Your task to perform on an android device: delete the emails in spam in the gmail app Image 0: 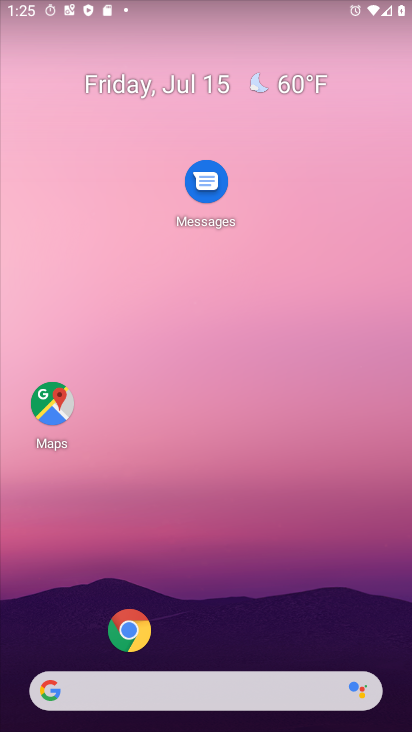
Step 0: drag from (96, 529) to (261, 179)
Your task to perform on an android device: delete the emails in spam in the gmail app Image 1: 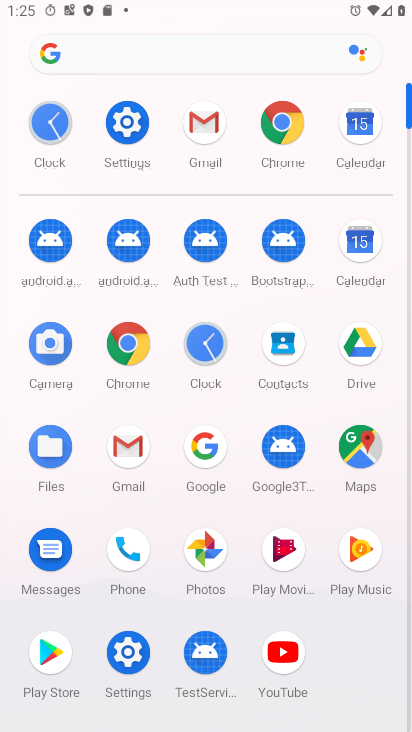
Step 1: click (190, 118)
Your task to perform on an android device: delete the emails in spam in the gmail app Image 2: 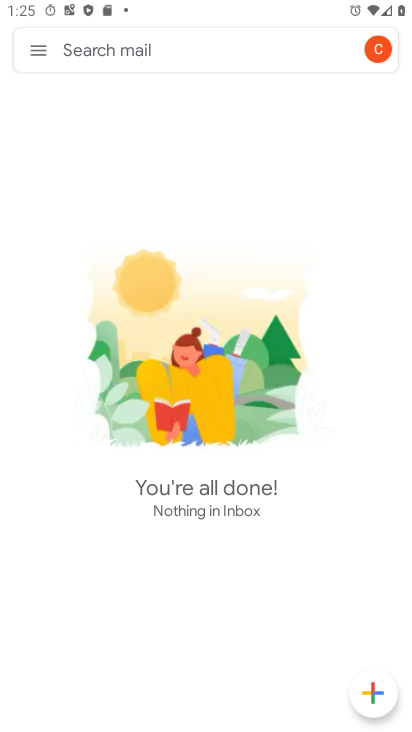
Step 2: click (47, 55)
Your task to perform on an android device: delete the emails in spam in the gmail app Image 3: 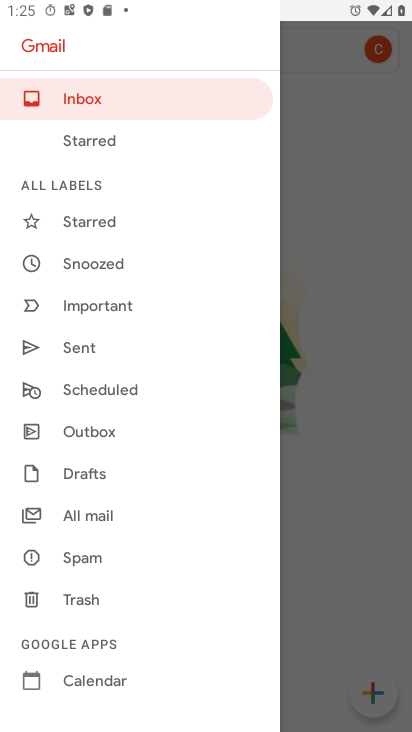
Step 3: click (72, 560)
Your task to perform on an android device: delete the emails in spam in the gmail app Image 4: 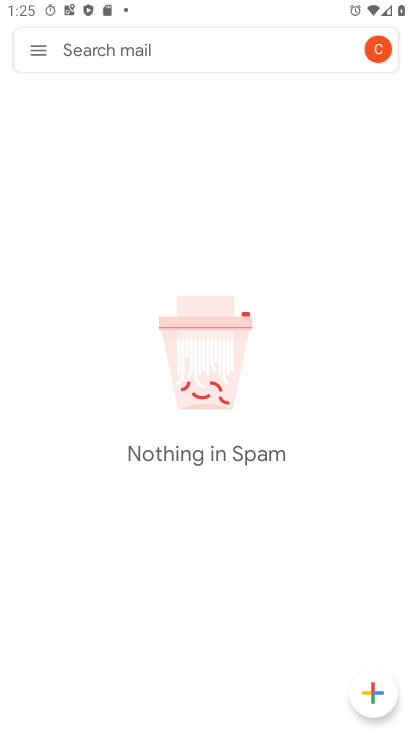
Step 4: task complete